Your task to perform on an android device: open the mobile data screen to see how much data has been used Image 0: 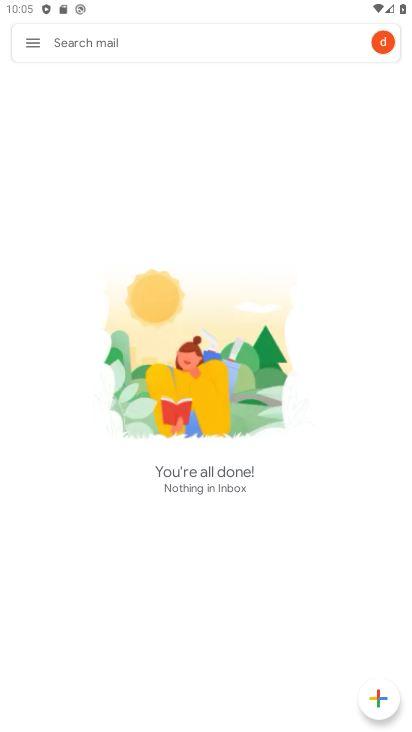
Step 0: press home button
Your task to perform on an android device: open the mobile data screen to see how much data has been used Image 1: 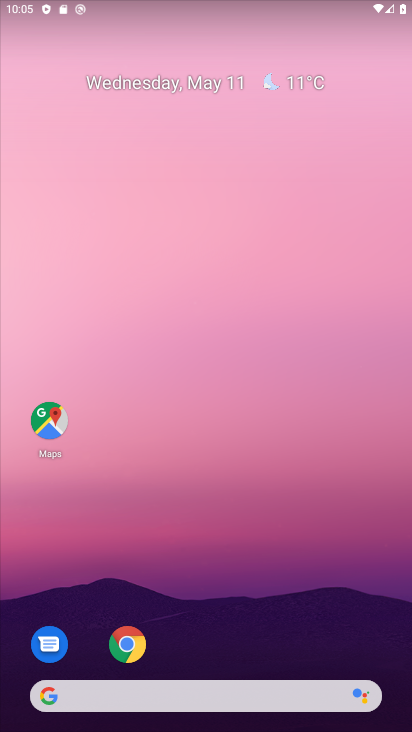
Step 1: drag from (305, 628) to (221, 10)
Your task to perform on an android device: open the mobile data screen to see how much data has been used Image 2: 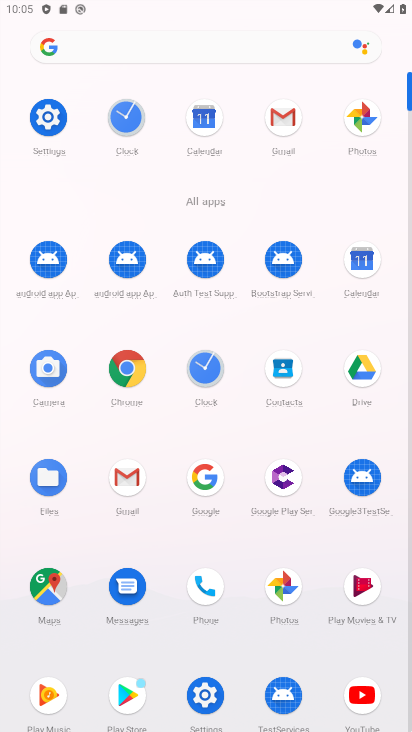
Step 2: click (50, 128)
Your task to perform on an android device: open the mobile data screen to see how much data has been used Image 3: 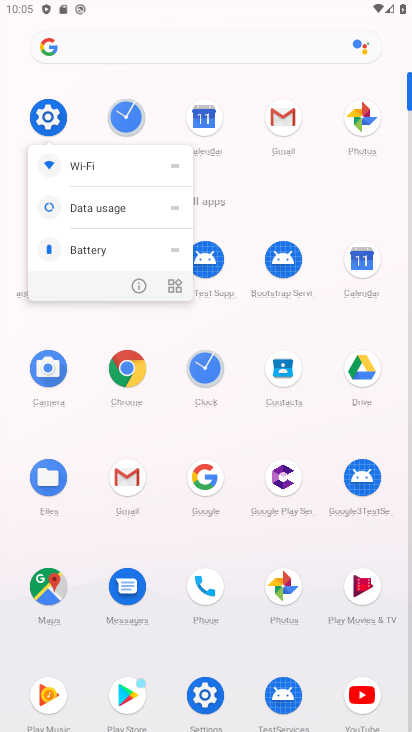
Step 3: click (53, 122)
Your task to perform on an android device: open the mobile data screen to see how much data has been used Image 4: 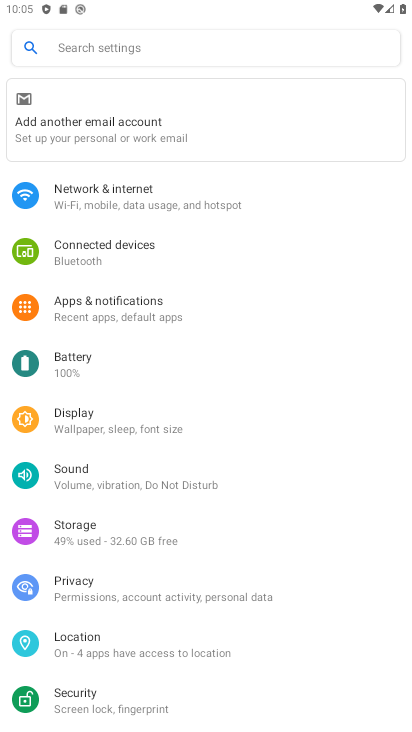
Step 4: click (102, 204)
Your task to perform on an android device: open the mobile data screen to see how much data has been used Image 5: 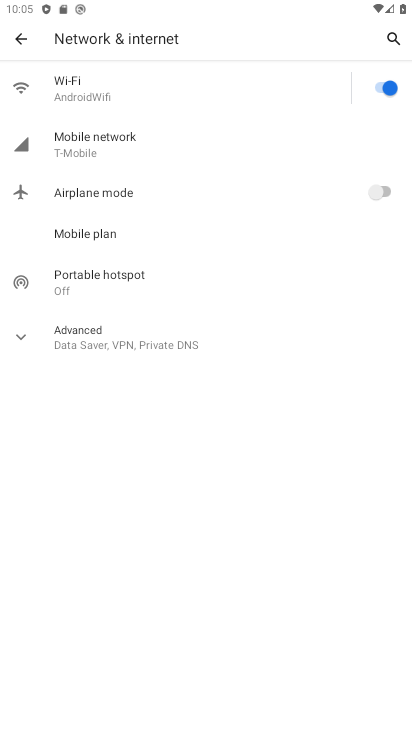
Step 5: click (70, 141)
Your task to perform on an android device: open the mobile data screen to see how much data has been used Image 6: 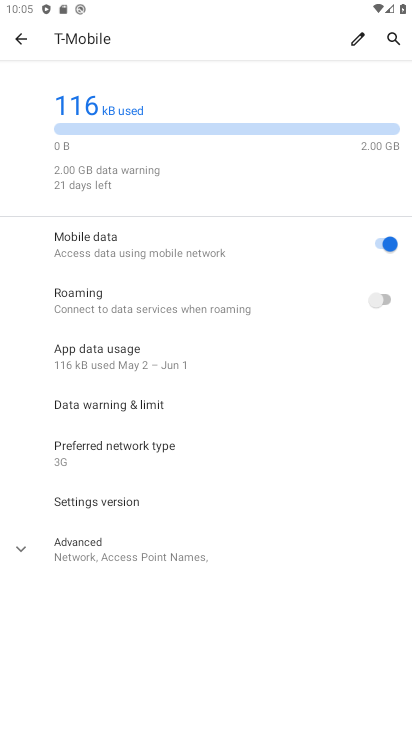
Step 6: click (121, 357)
Your task to perform on an android device: open the mobile data screen to see how much data has been used Image 7: 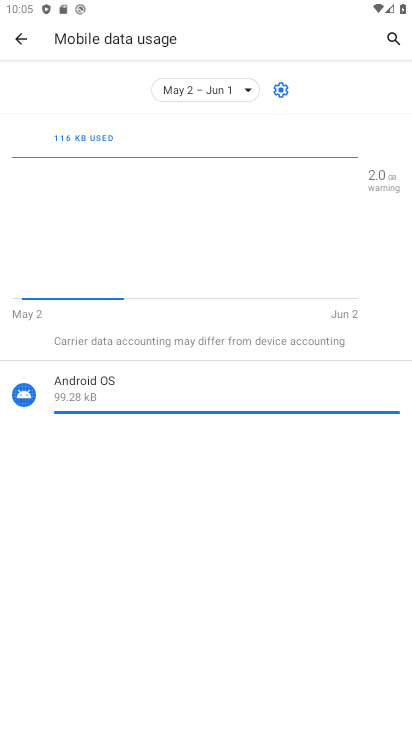
Step 7: task complete